Your task to perform on an android device: turn off sleep mode Image 0: 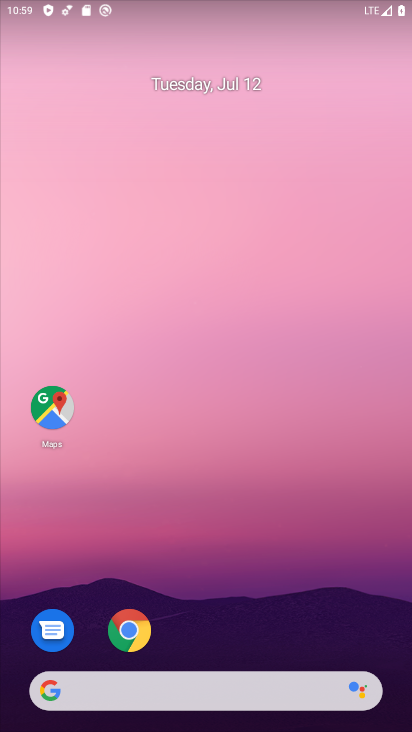
Step 0: drag from (357, 641) to (170, 76)
Your task to perform on an android device: turn off sleep mode Image 1: 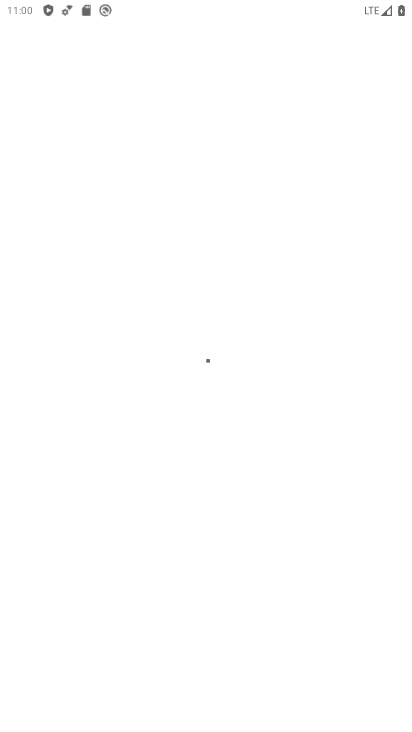
Step 1: press home button
Your task to perform on an android device: turn off sleep mode Image 2: 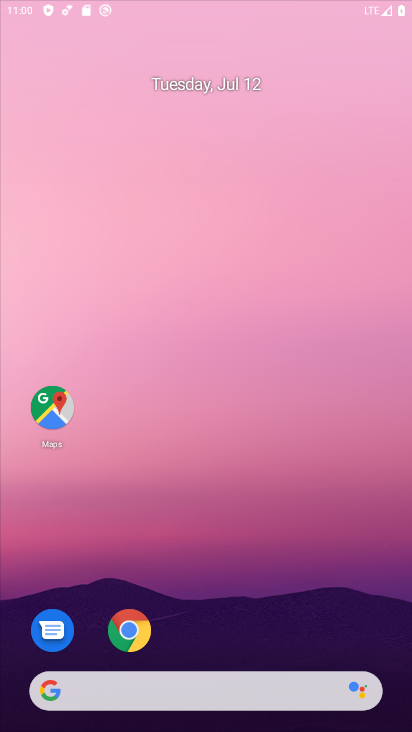
Step 2: drag from (387, 661) to (187, 72)
Your task to perform on an android device: turn off sleep mode Image 3: 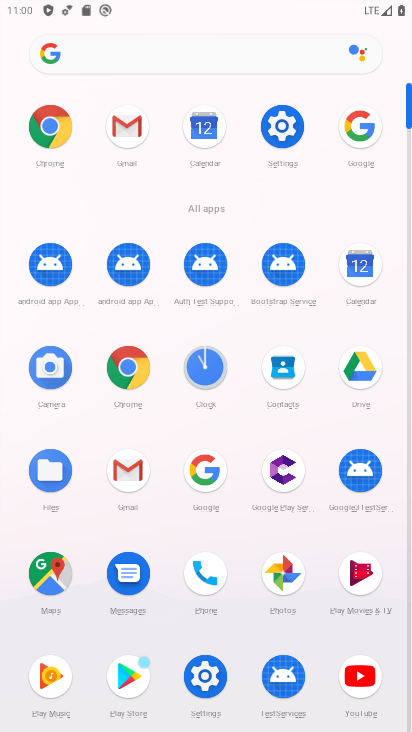
Step 3: click (273, 135)
Your task to perform on an android device: turn off sleep mode Image 4: 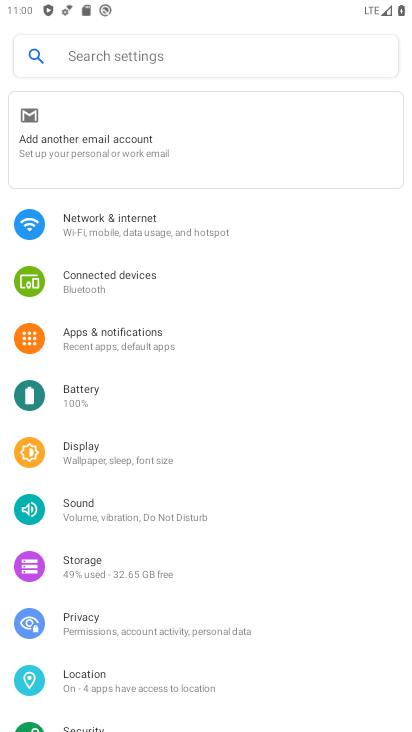
Step 4: task complete